Your task to perform on an android device: Open Maps and search for coffee Image 0: 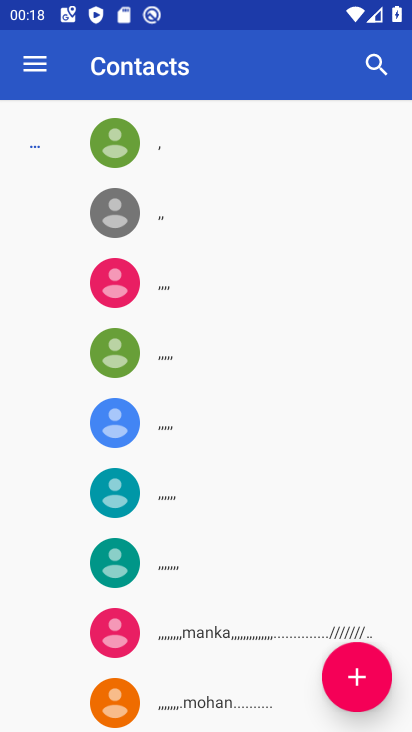
Step 0: press home button
Your task to perform on an android device: Open Maps and search for coffee Image 1: 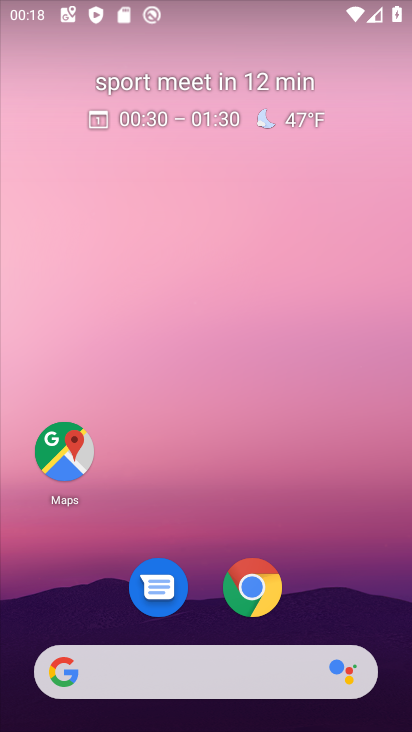
Step 1: click (76, 456)
Your task to perform on an android device: Open Maps and search for coffee Image 2: 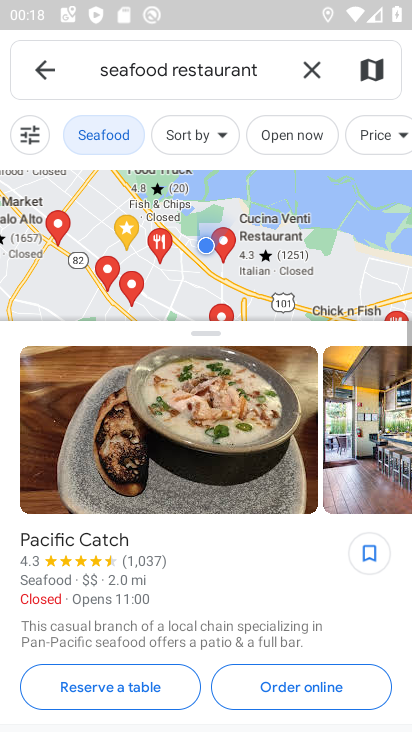
Step 2: click (314, 75)
Your task to perform on an android device: Open Maps and search for coffee Image 3: 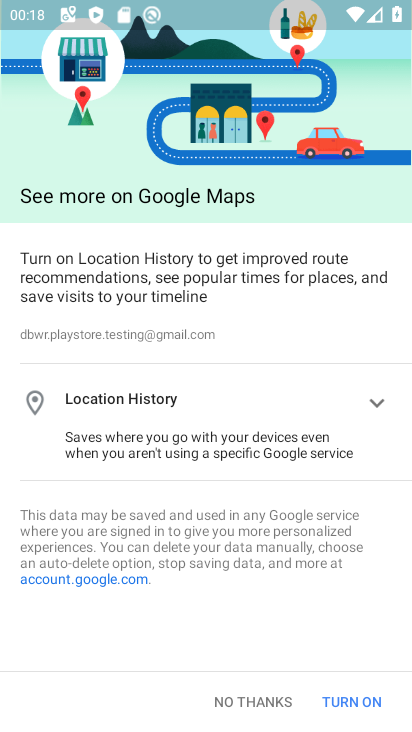
Step 3: click (338, 693)
Your task to perform on an android device: Open Maps and search for coffee Image 4: 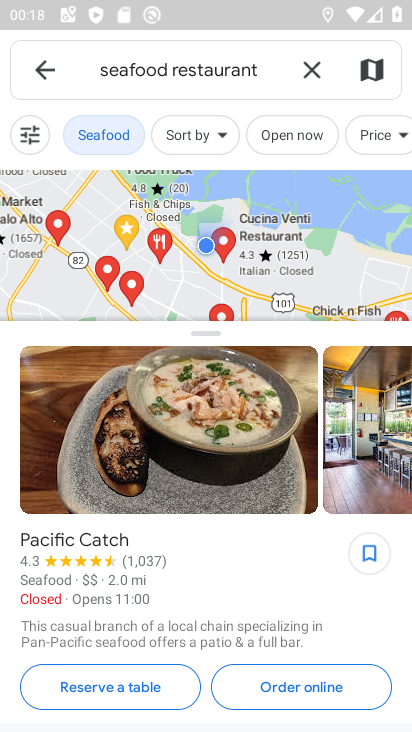
Step 4: click (318, 70)
Your task to perform on an android device: Open Maps and search for coffee Image 5: 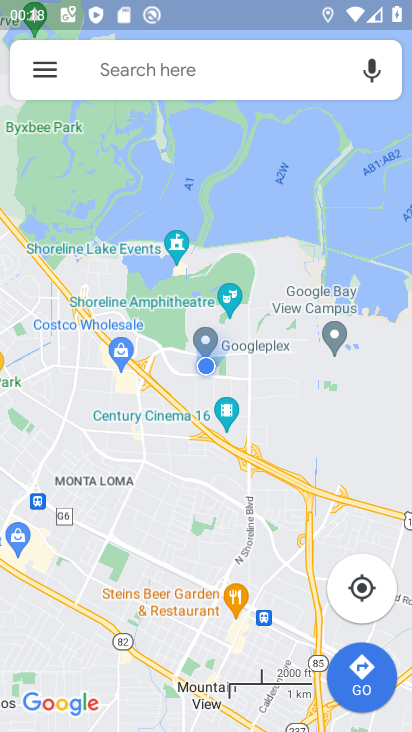
Step 5: click (181, 66)
Your task to perform on an android device: Open Maps and search for coffee Image 6: 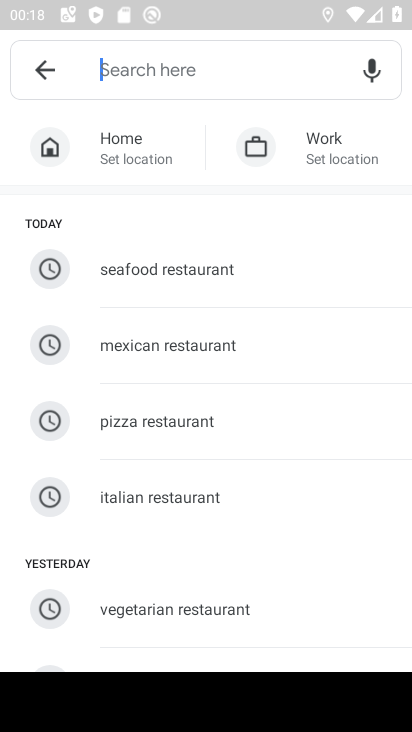
Step 6: type "coffee"
Your task to perform on an android device: Open Maps and search for coffee Image 7: 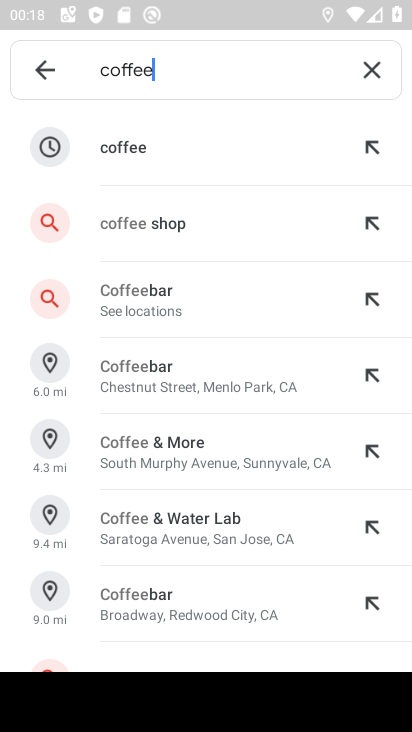
Step 7: click (122, 145)
Your task to perform on an android device: Open Maps and search for coffee Image 8: 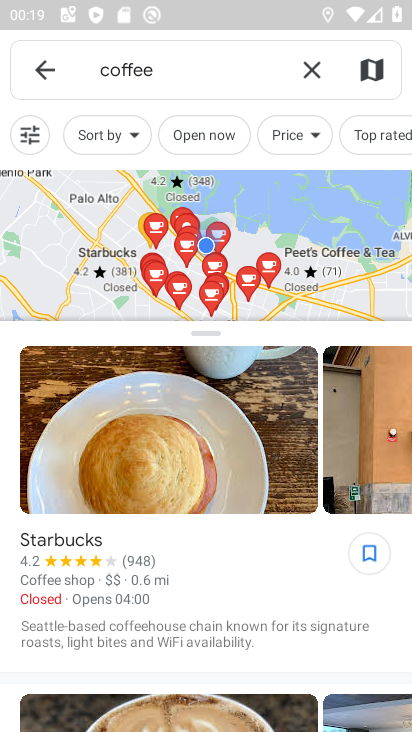
Step 8: task complete